Your task to perform on an android device: Open Chrome and go to settings Image 0: 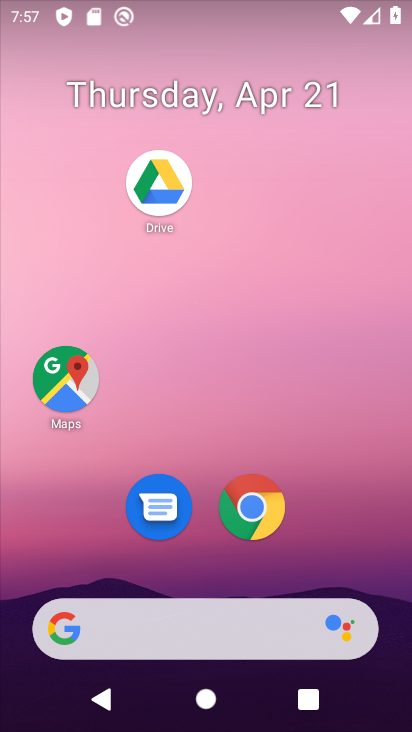
Step 0: drag from (367, 536) to (370, 88)
Your task to perform on an android device: Open Chrome and go to settings Image 1: 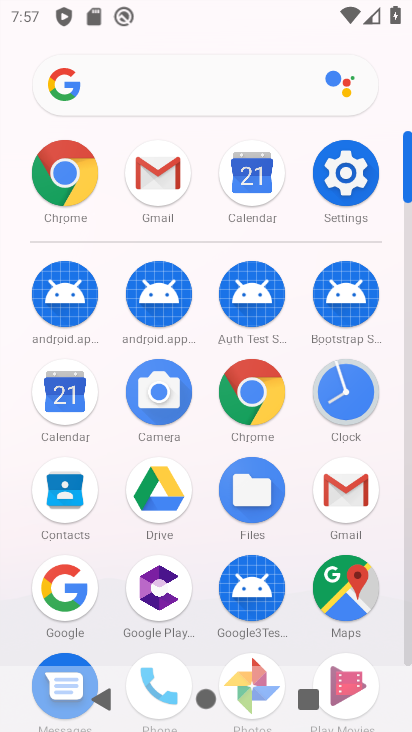
Step 1: click (264, 394)
Your task to perform on an android device: Open Chrome and go to settings Image 2: 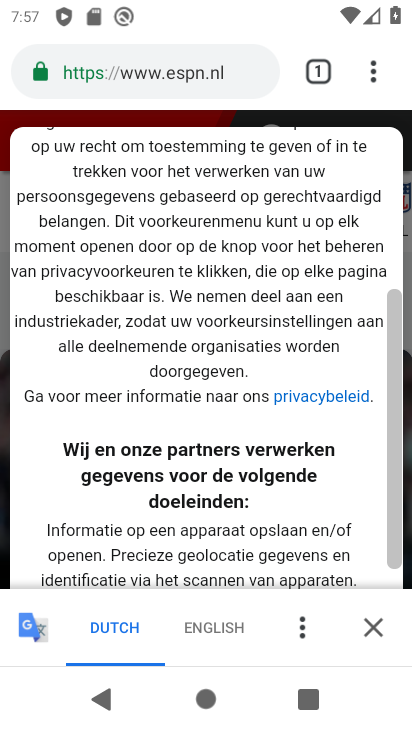
Step 2: click (376, 75)
Your task to perform on an android device: Open Chrome and go to settings Image 3: 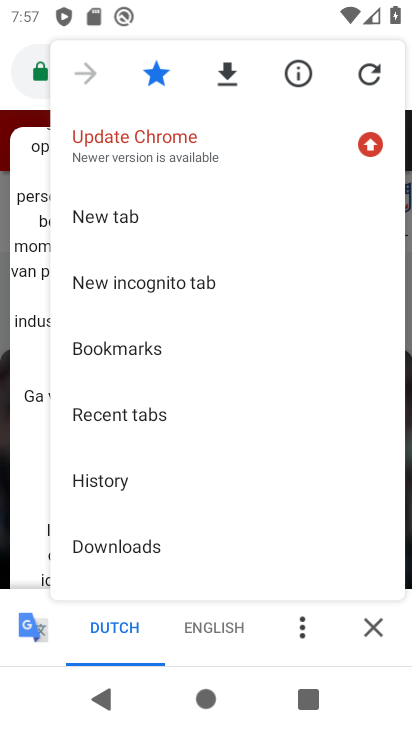
Step 3: drag from (306, 481) to (320, 374)
Your task to perform on an android device: Open Chrome and go to settings Image 4: 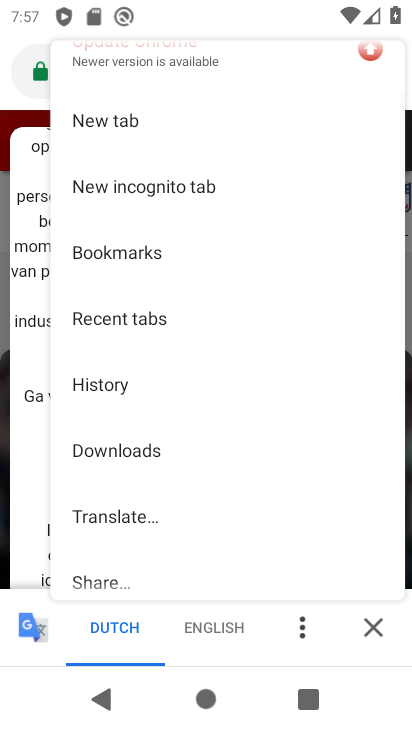
Step 4: drag from (303, 477) to (312, 360)
Your task to perform on an android device: Open Chrome and go to settings Image 5: 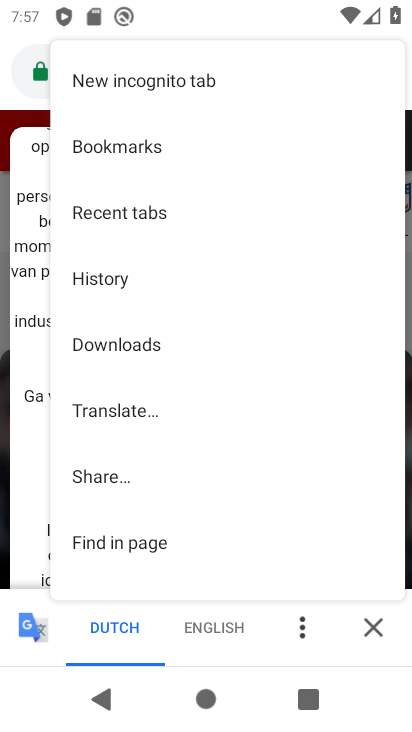
Step 5: drag from (304, 487) to (321, 348)
Your task to perform on an android device: Open Chrome and go to settings Image 6: 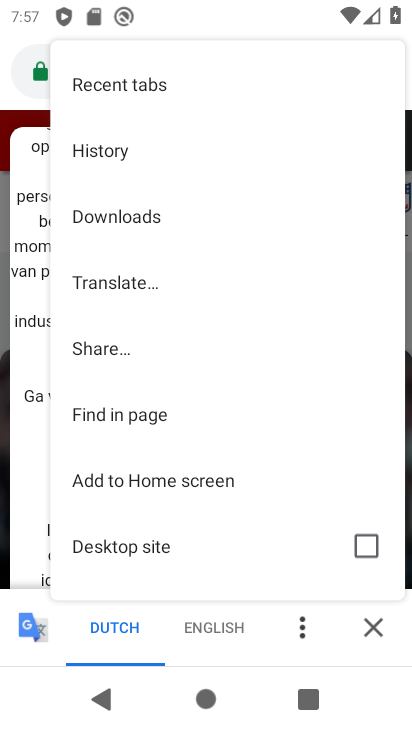
Step 6: drag from (315, 475) to (328, 341)
Your task to perform on an android device: Open Chrome and go to settings Image 7: 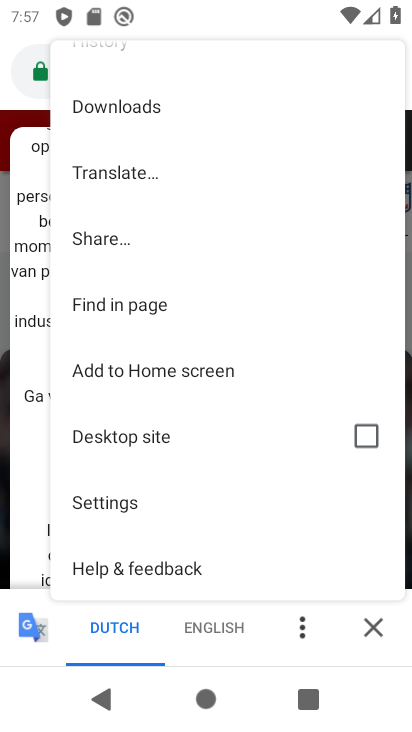
Step 7: drag from (302, 496) to (315, 332)
Your task to perform on an android device: Open Chrome and go to settings Image 8: 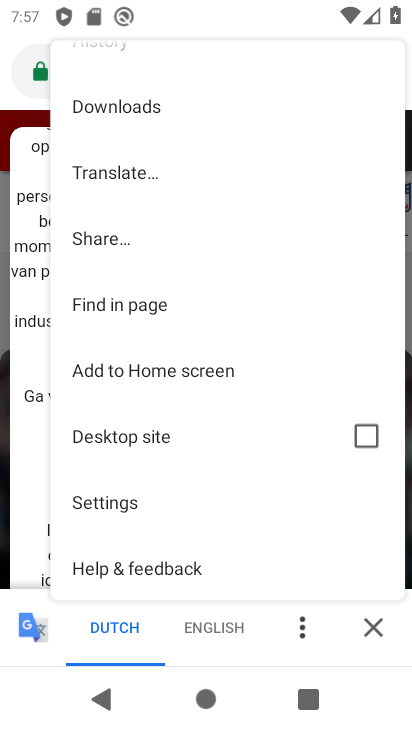
Step 8: click (122, 512)
Your task to perform on an android device: Open Chrome and go to settings Image 9: 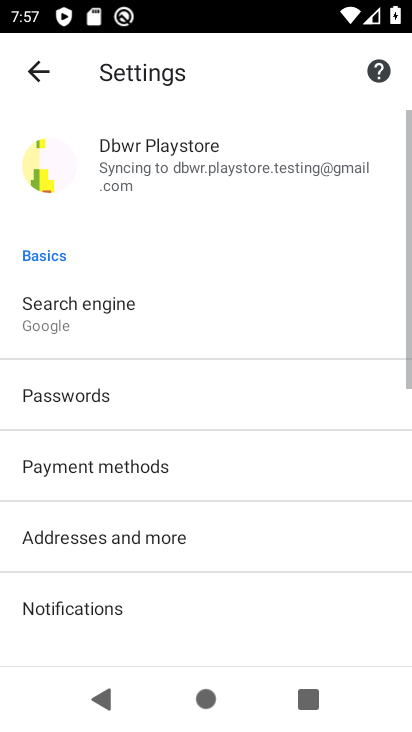
Step 9: task complete